Your task to perform on an android device: Go to Android settings Image 0: 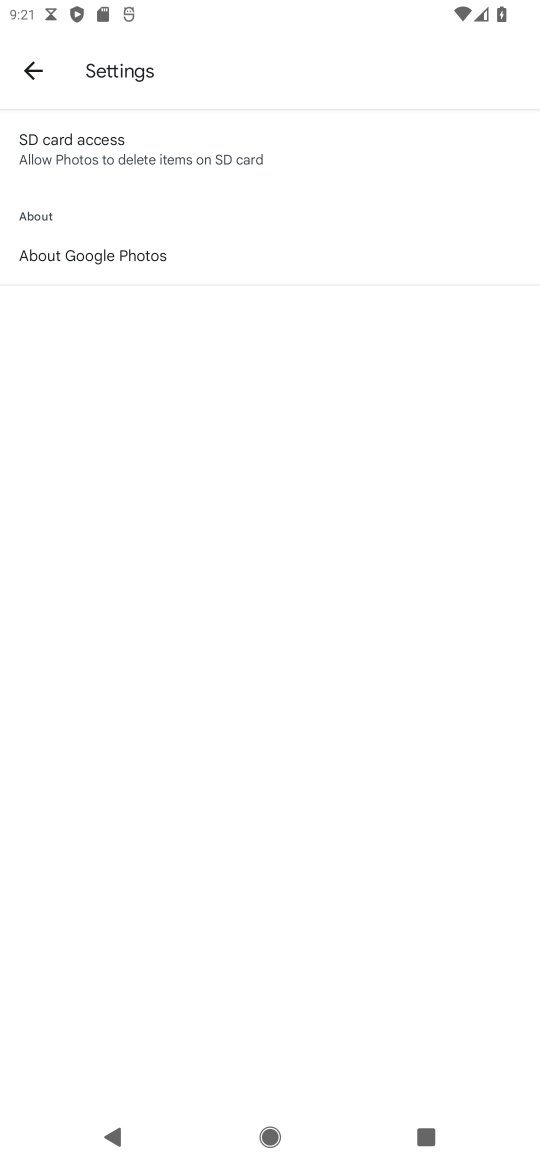
Step 0: press home button
Your task to perform on an android device: Go to Android settings Image 1: 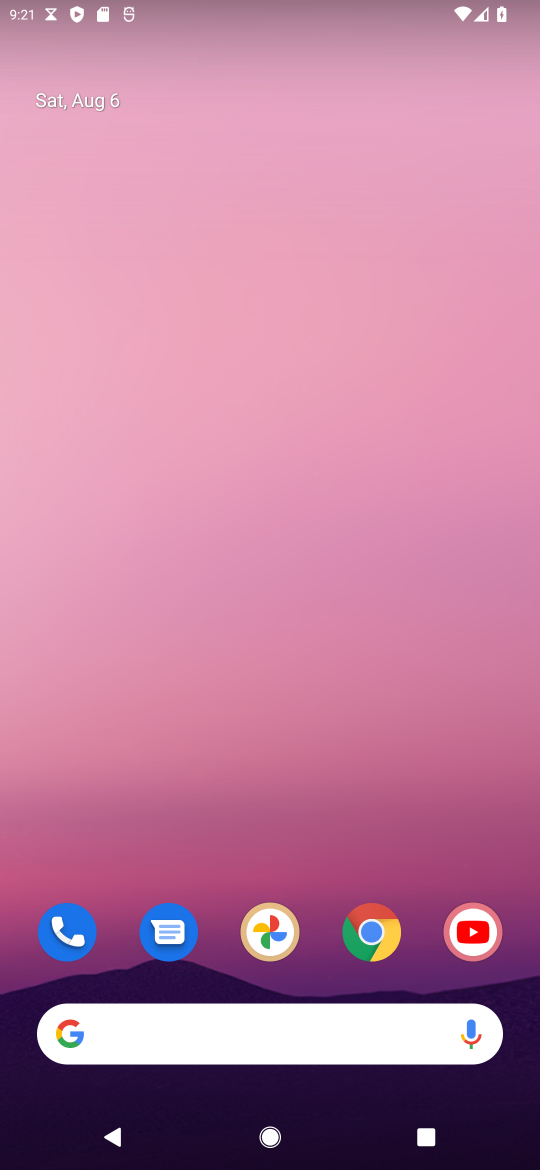
Step 1: drag from (213, 1009) to (289, 215)
Your task to perform on an android device: Go to Android settings Image 2: 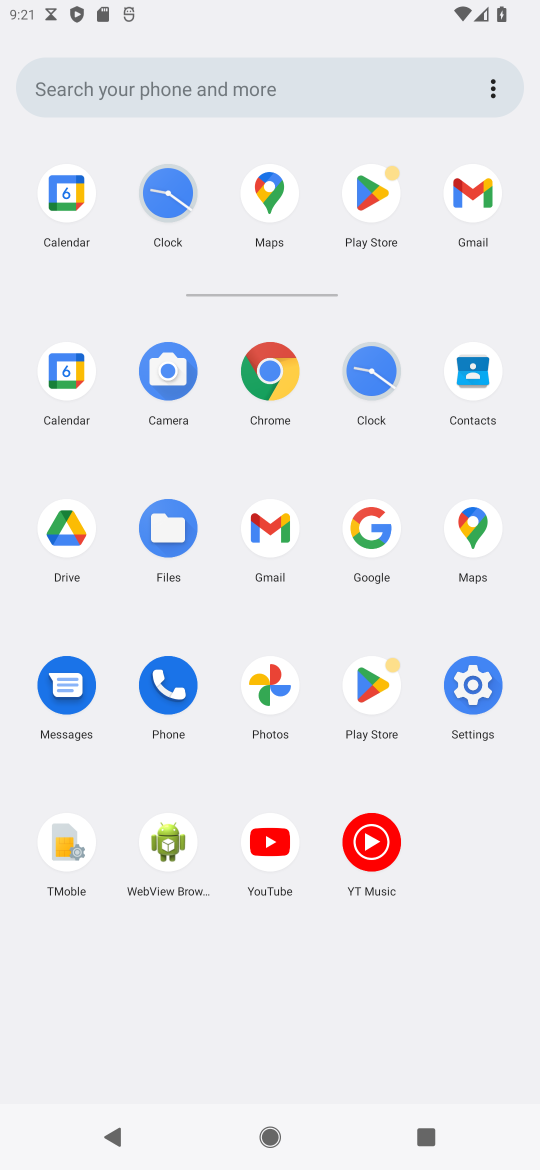
Step 2: click (469, 682)
Your task to perform on an android device: Go to Android settings Image 3: 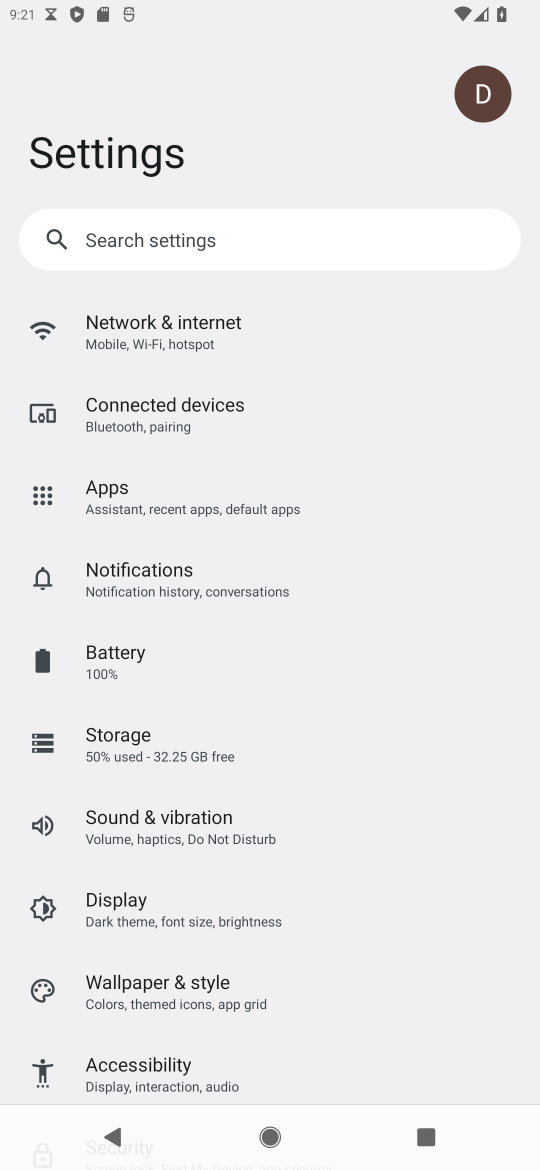
Step 3: task complete